Your task to perform on an android device: change your default location settings in chrome Image 0: 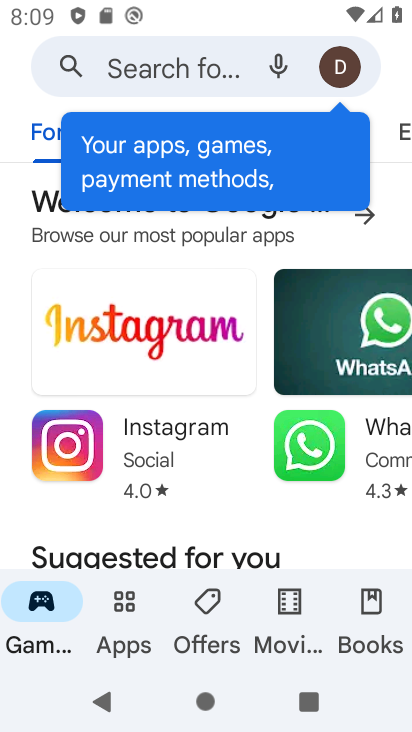
Step 0: press home button
Your task to perform on an android device: change your default location settings in chrome Image 1: 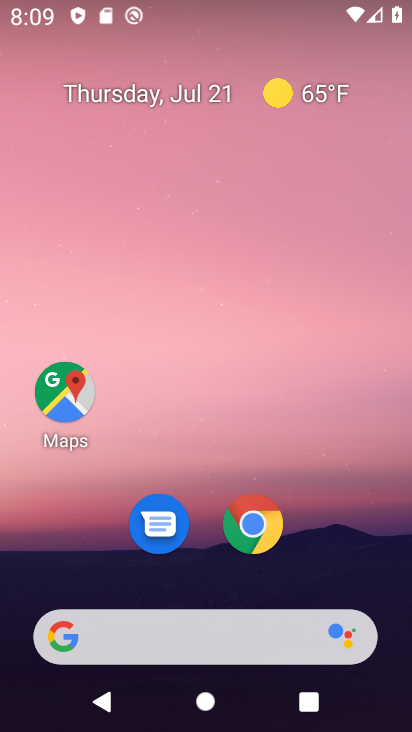
Step 1: click (234, 542)
Your task to perform on an android device: change your default location settings in chrome Image 2: 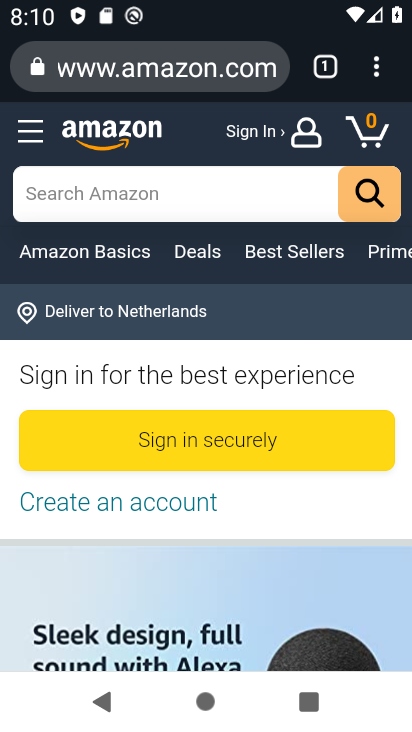
Step 2: drag from (383, 63) to (161, 519)
Your task to perform on an android device: change your default location settings in chrome Image 3: 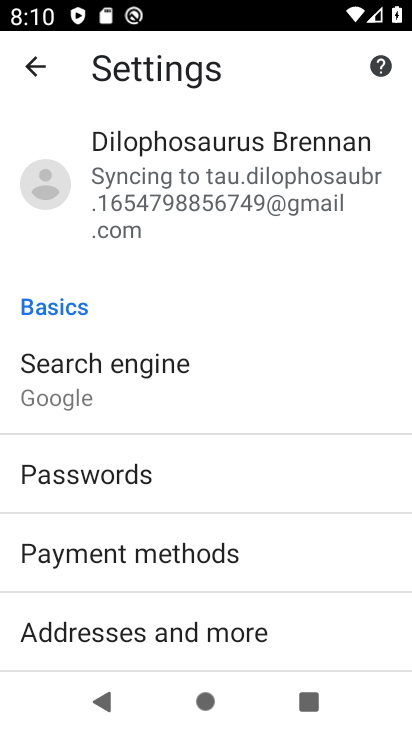
Step 3: drag from (143, 612) to (140, 88)
Your task to perform on an android device: change your default location settings in chrome Image 4: 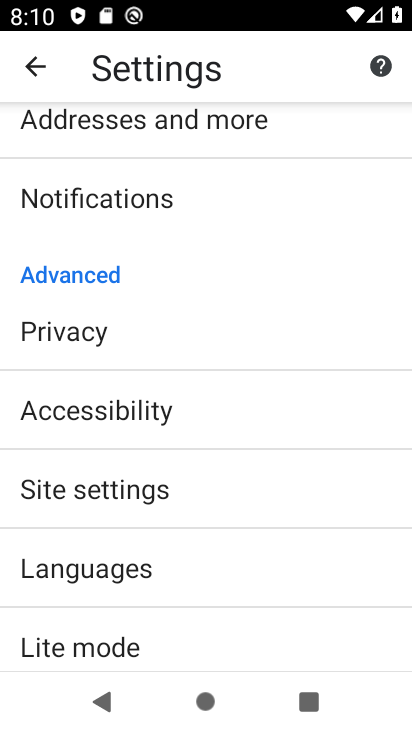
Step 4: click (119, 504)
Your task to perform on an android device: change your default location settings in chrome Image 5: 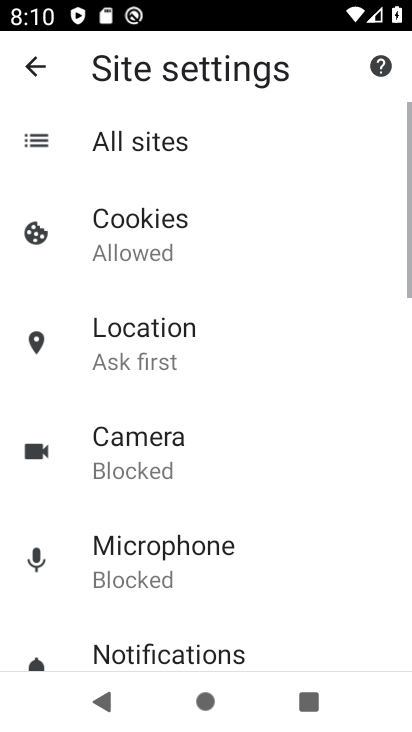
Step 5: click (170, 353)
Your task to perform on an android device: change your default location settings in chrome Image 6: 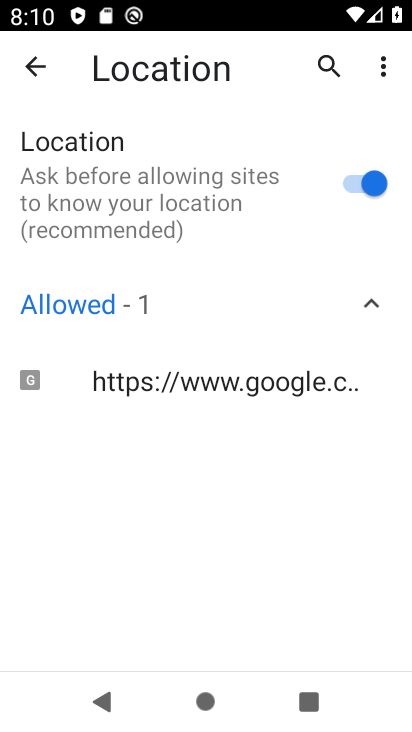
Step 6: click (342, 177)
Your task to perform on an android device: change your default location settings in chrome Image 7: 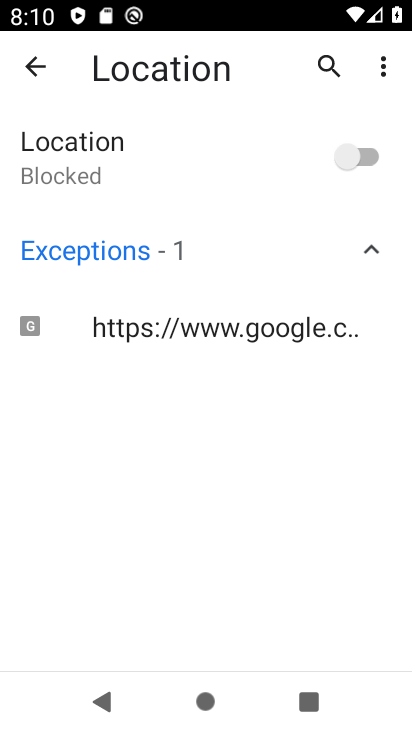
Step 7: task complete